Your task to perform on an android device: turn on wifi Image 0: 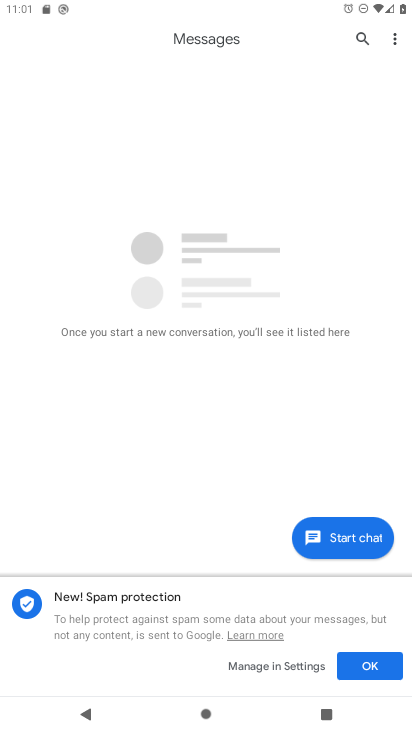
Step 0: press home button
Your task to perform on an android device: turn on wifi Image 1: 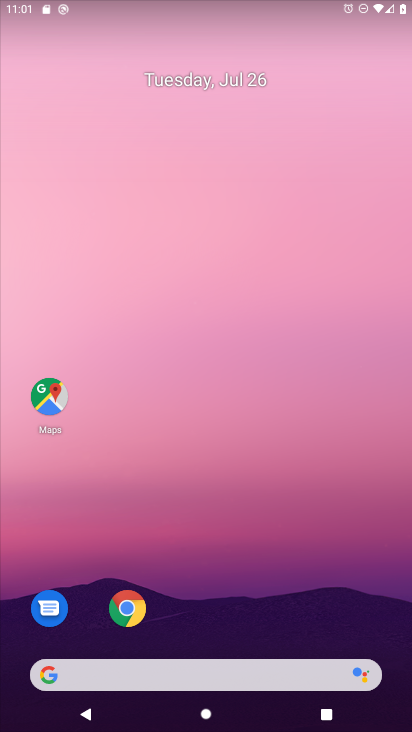
Step 1: drag from (289, 617) to (281, 28)
Your task to perform on an android device: turn on wifi Image 2: 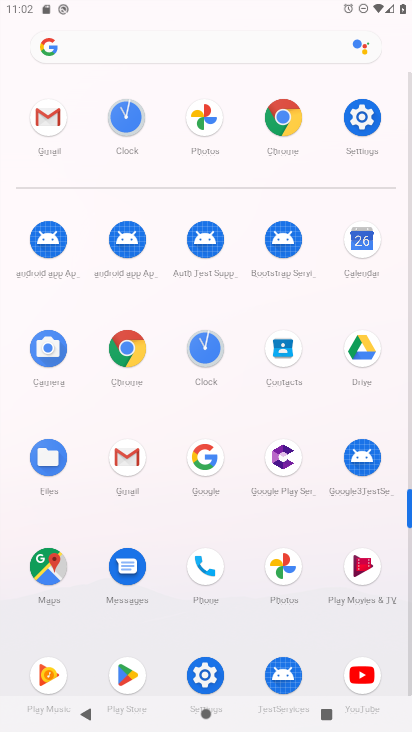
Step 2: click (368, 120)
Your task to perform on an android device: turn on wifi Image 3: 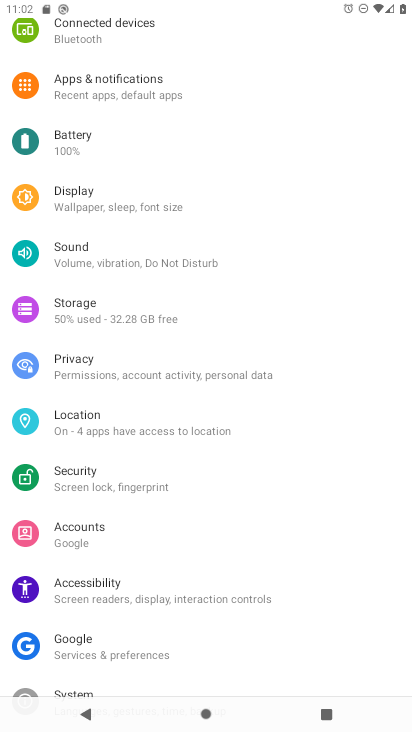
Step 3: drag from (126, 62) to (178, 410)
Your task to perform on an android device: turn on wifi Image 4: 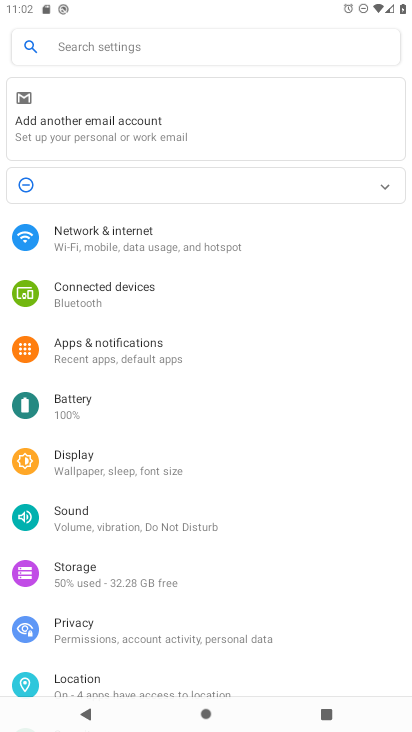
Step 4: click (134, 249)
Your task to perform on an android device: turn on wifi Image 5: 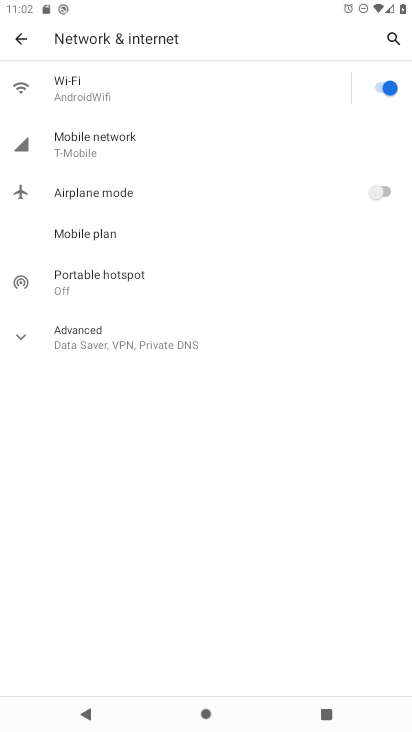
Step 5: click (172, 99)
Your task to perform on an android device: turn on wifi Image 6: 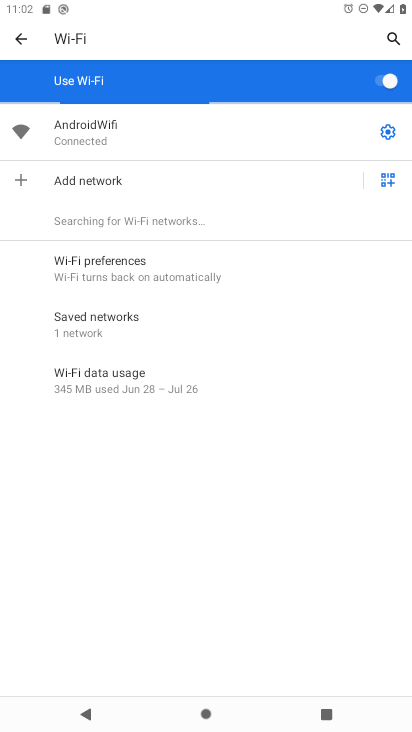
Step 6: task complete